Your task to perform on an android device: What's the weather going to be this weekend? Image 0: 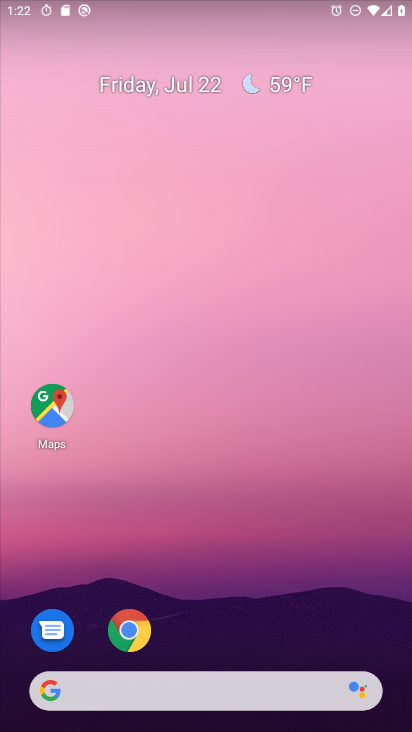
Step 0: click (39, 688)
Your task to perform on an android device: What's the weather going to be this weekend? Image 1: 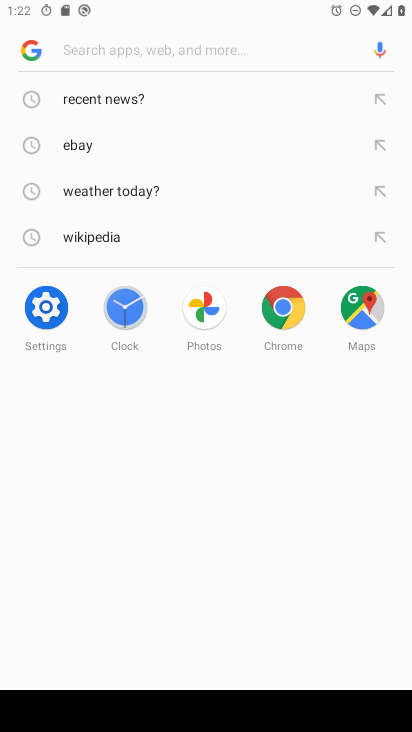
Step 1: type "weather going to be this weekend?"
Your task to perform on an android device: What's the weather going to be this weekend? Image 2: 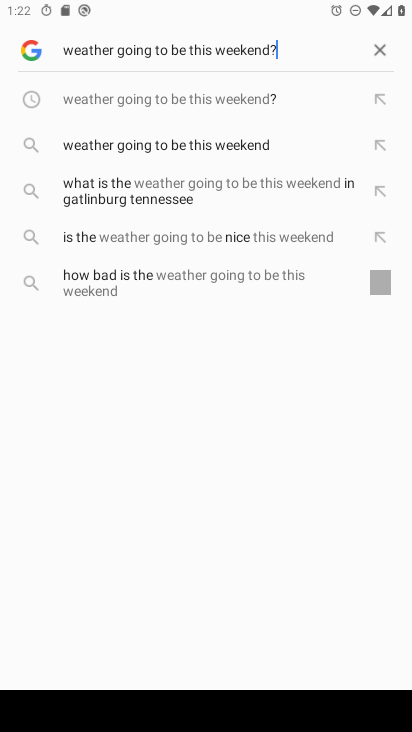
Step 2: press enter
Your task to perform on an android device: What's the weather going to be this weekend? Image 3: 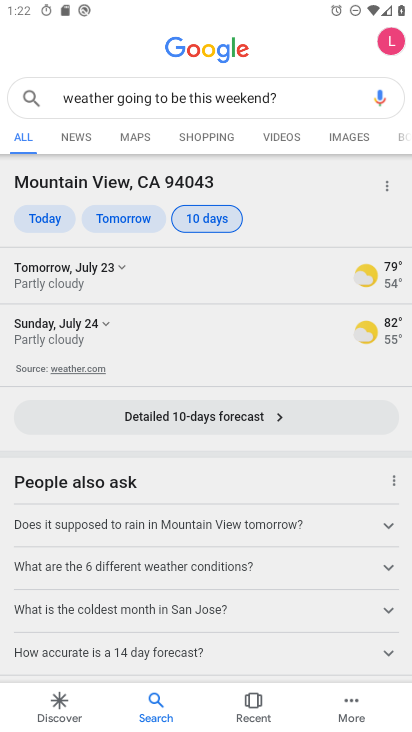
Step 3: task complete